Your task to perform on an android device: Search for Italian restaurants on Maps Image 0: 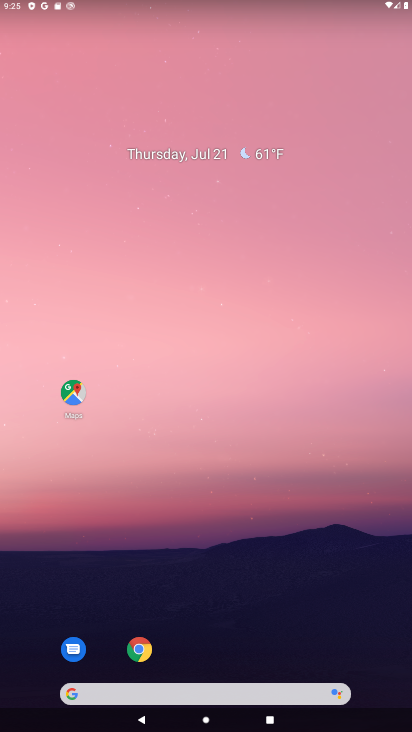
Step 0: click (74, 392)
Your task to perform on an android device: Search for Italian restaurants on Maps Image 1: 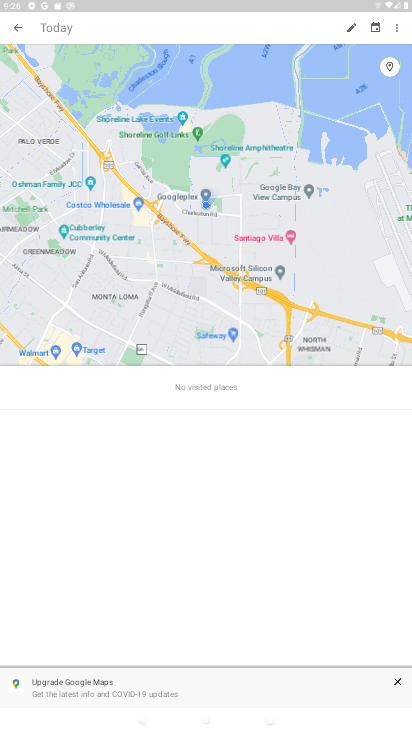
Step 1: press back button
Your task to perform on an android device: Search for Italian restaurants on Maps Image 2: 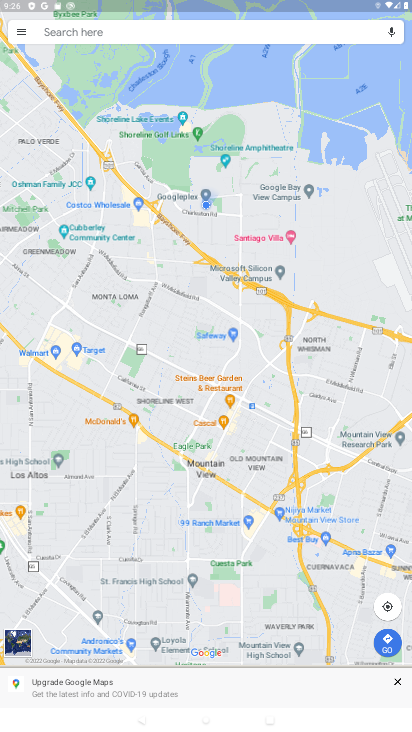
Step 2: click (222, 31)
Your task to perform on an android device: Search for Italian restaurants on Maps Image 3: 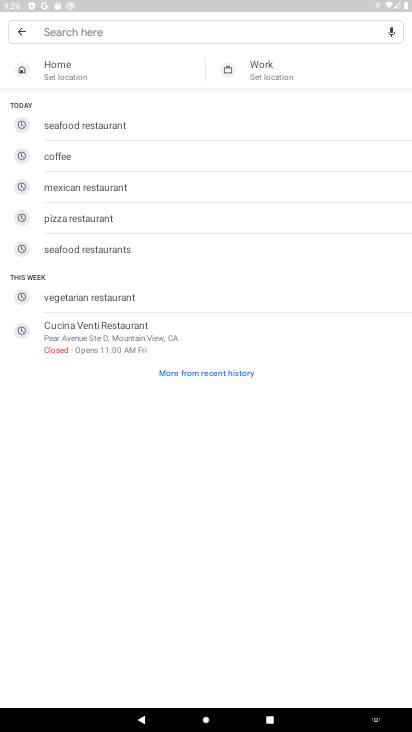
Step 3: type "Italian restaurants"
Your task to perform on an android device: Search for Italian restaurants on Maps Image 4: 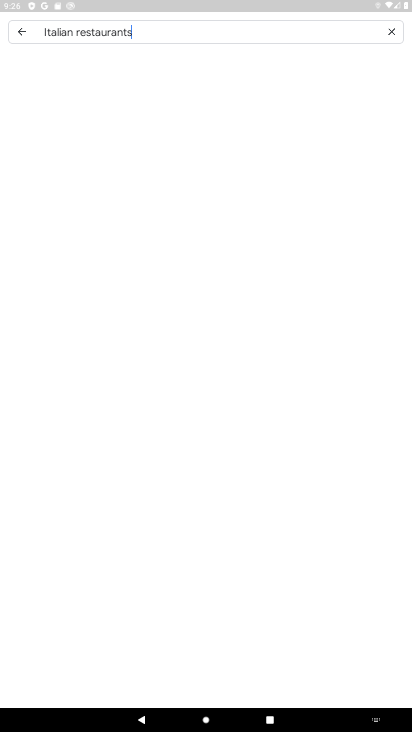
Step 4: type ""
Your task to perform on an android device: Search for Italian restaurants on Maps Image 5: 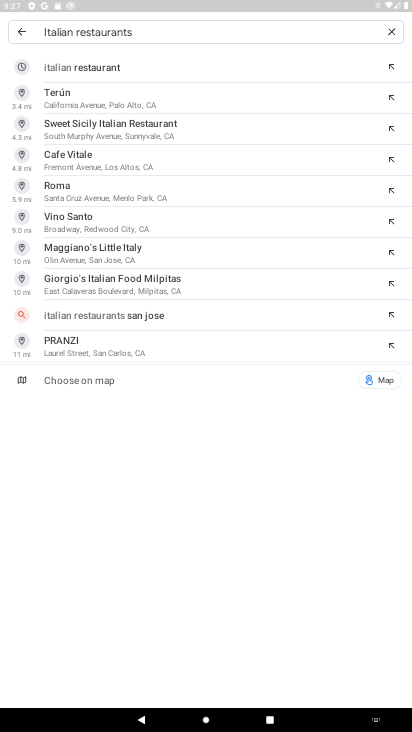
Step 5: click (112, 68)
Your task to perform on an android device: Search for Italian restaurants on Maps Image 6: 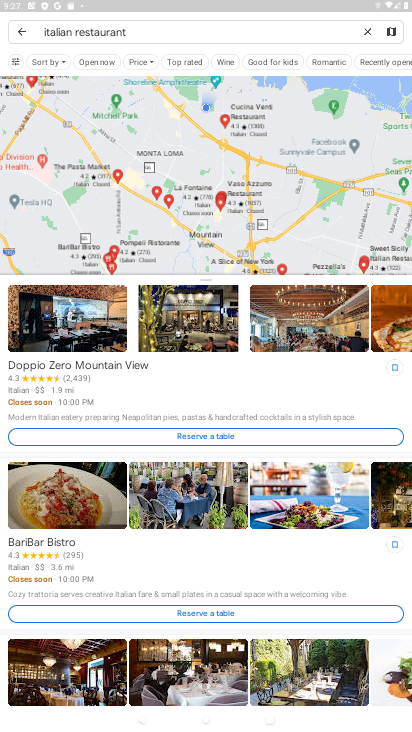
Step 6: task complete